Your task to perform on an android device: What's the weather going to be tomorrow? Image 0: 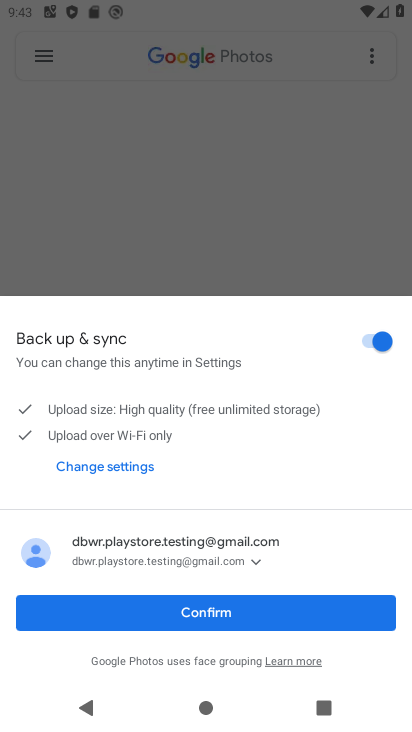
Step 0: press home button
Your task to perform on an android device: What's the weather going to be tomorrow? Image 1: 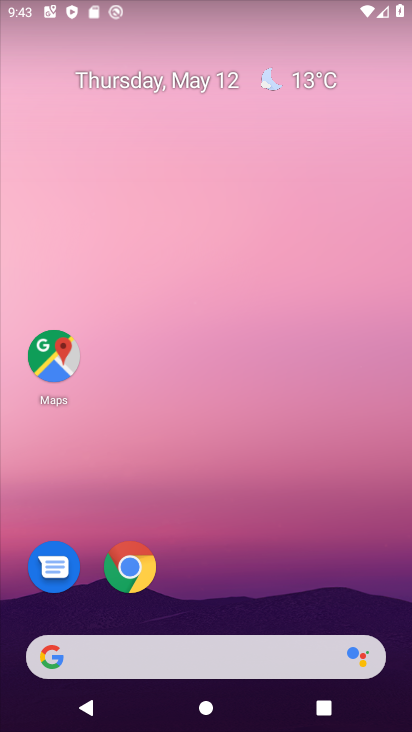
Step 1: click (222, 660)
Your task to perform on an android device: What's the weather going to be tomorrow? Image 2: 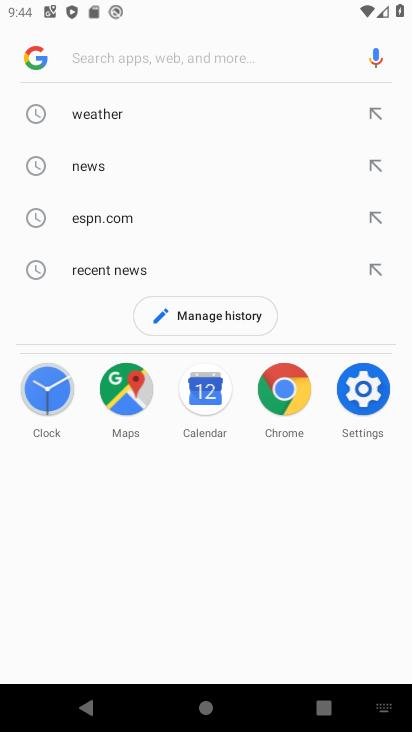
Step 2: type "whats the weather going to be tomorrow"
Your task to perform on an android device: What's the weather going to be tomorrow? Image 3: 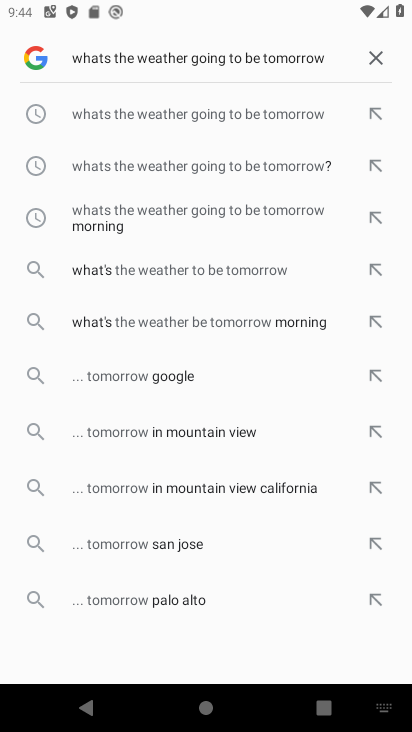
Step 3: click (297, 121)
Your task to perform on an android device: What's the weather going to be tomorrow? Image 4: 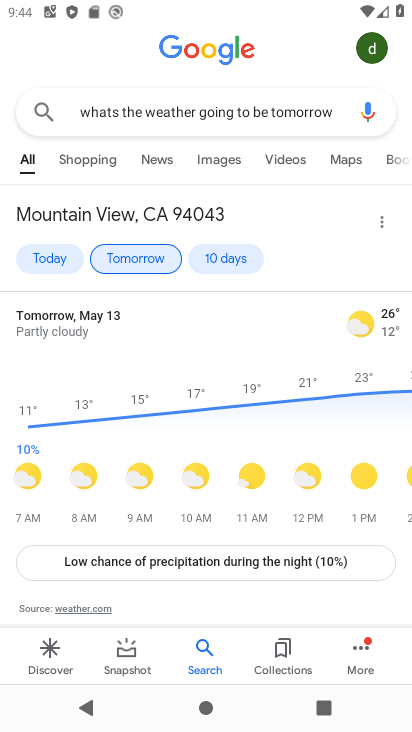
Step 4: task complete